Your task to perform on an android device: turn off location history Image 0: 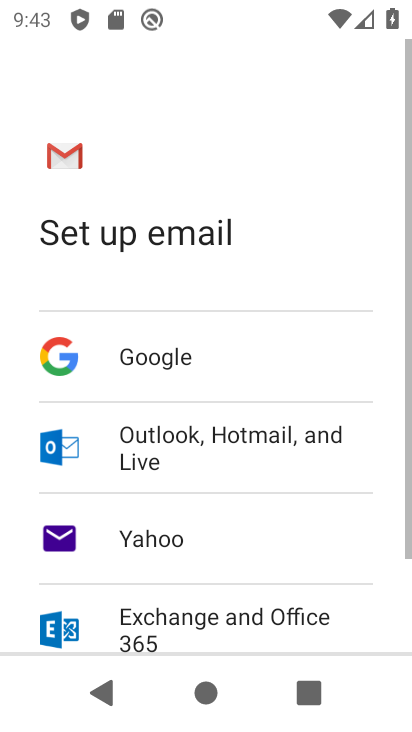
Step 0: press home button
Your task to perform on an android device: turn off location history Image 1: 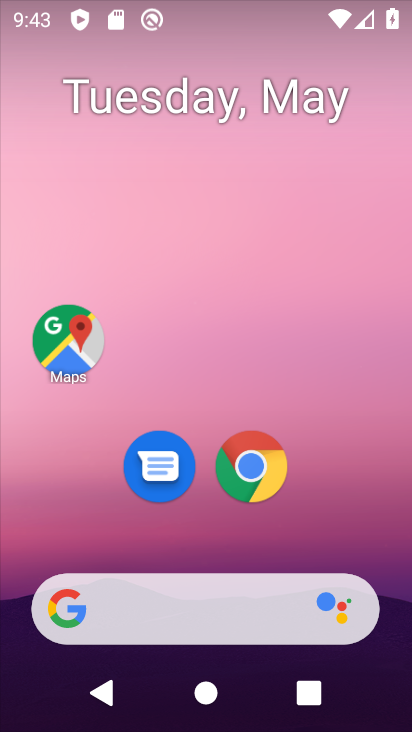
Step 1: drag from (57, 588) to (235, 55)
Your task to perform on an android device: turn off location history Image 2: 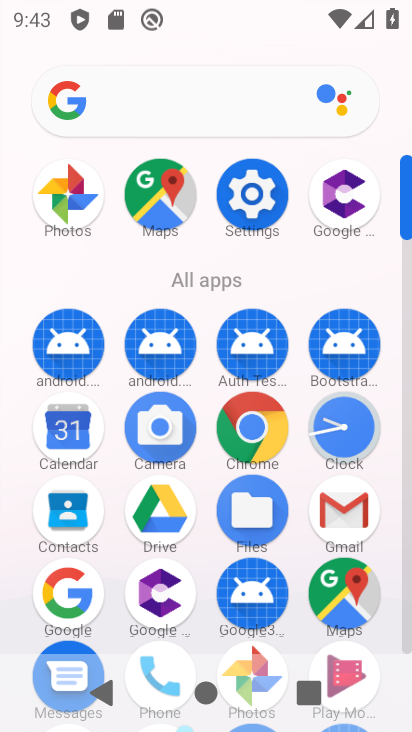
Step 2: drag from (200, 445) to (243, 242)
Your task to perform on an android device: turn off location history Image 3: 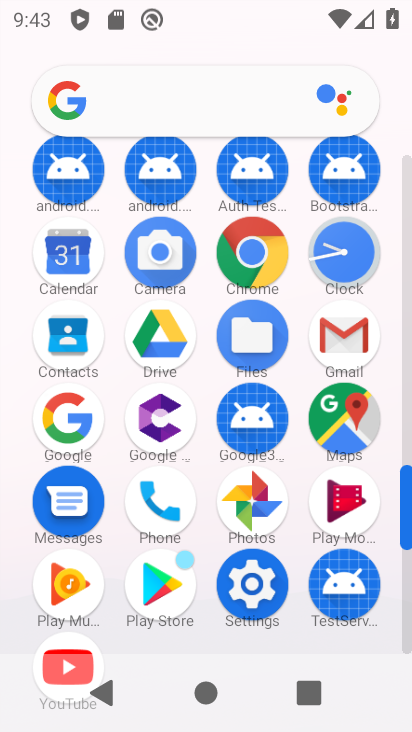
Step 3: click (250, 604)
Your task to perform on an android device: turn off location history Image 4: 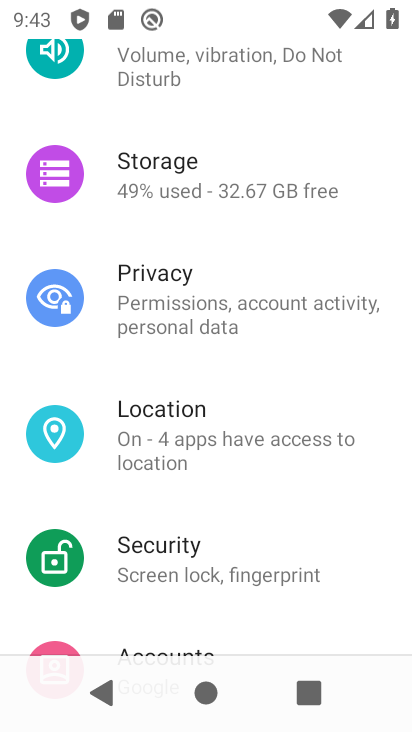
Step 4: drag from (253, 239) to (315, 254)
Your task to perform on an android device: turn off location history Image 5: 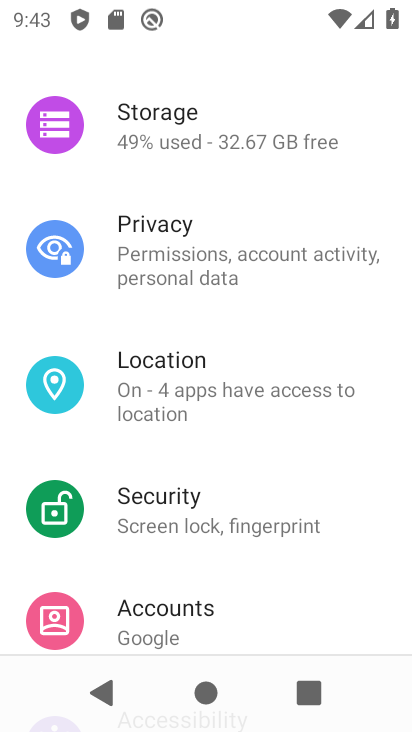
Step 5: click (205, 380)
Your task to perform on an android device: turn off location history Image 6: 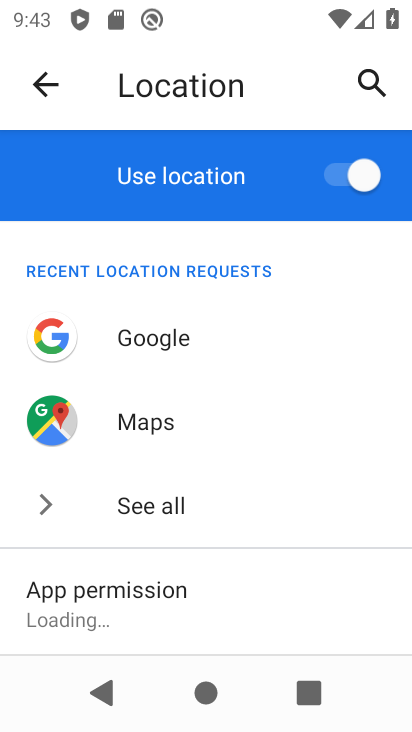
Step 6: drag from (193, 600) to (284, 258)
Your task to perform on an android device: turn off location history Image 7: 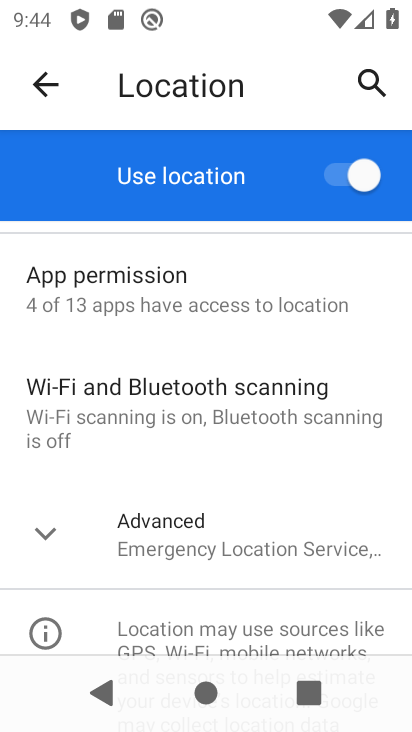
Step 7: click (218, 542)
Your task to perform on an android device: turn off location history Image 8: 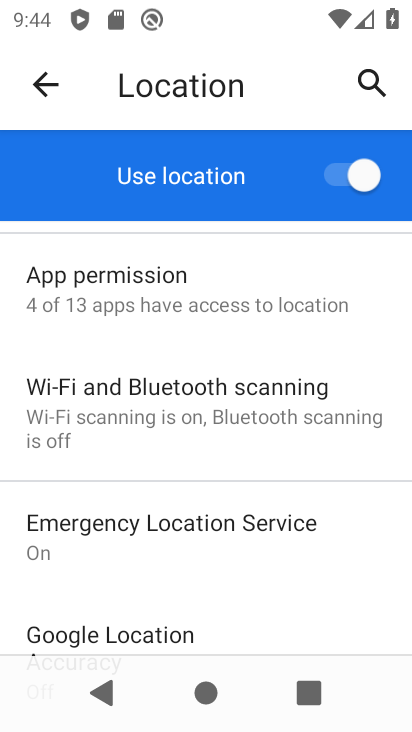
Step 8: drag from (232, 383) to (271, 292)
Your task to perform on an android device: turn off location history Image 9: 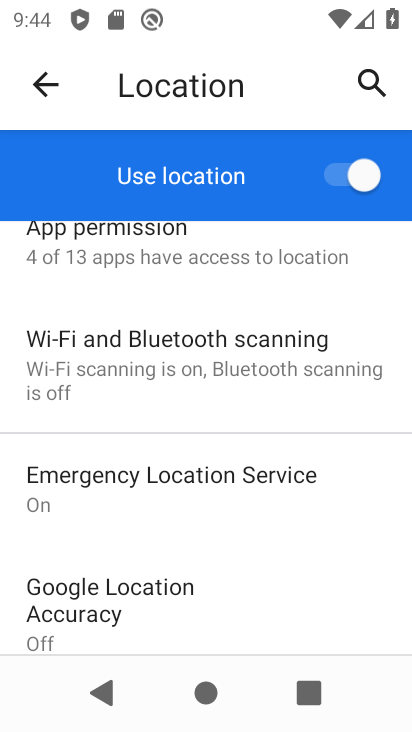
Step 9: drag from (195, 625) to (260, 392)
Your task to perform on an android device: turn off location history Image 10: 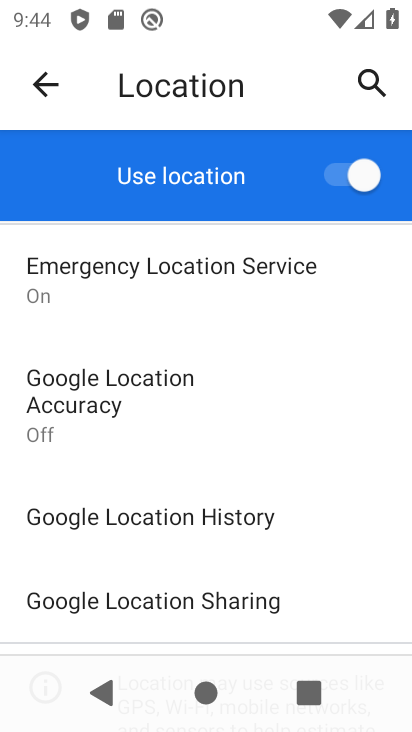
Step 10: drag from (147, 591) to (231, 496)
Your task to perform on an android device: turn off location history Image 11: 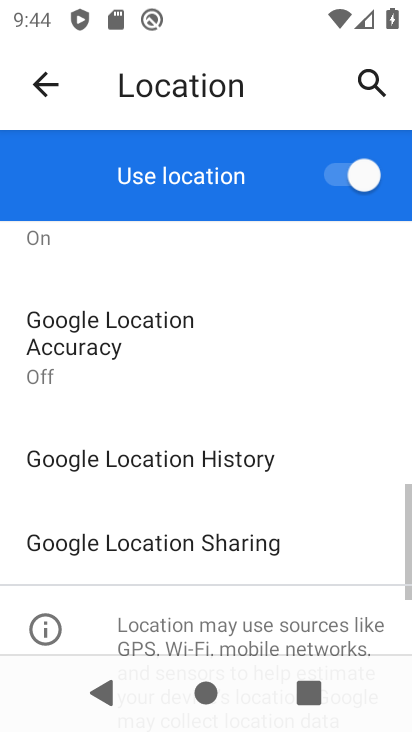
Step 11: click (210, 480)
Your task to perform on an android device: turn off location history Image 12: 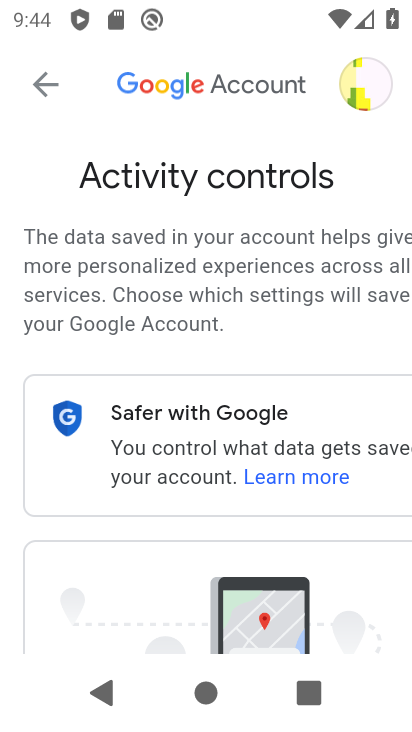
Step 12: drag from (153, 563) to (262, 223)
Your task to perform on an android device: turn off location history Image 13: 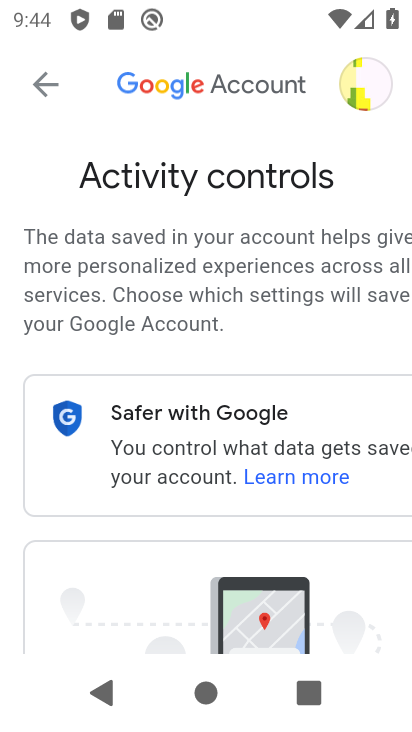
Step 13: drag from (206, 600) to (344, 83)
Your task to perform on an android device: turn off location history Image 14: 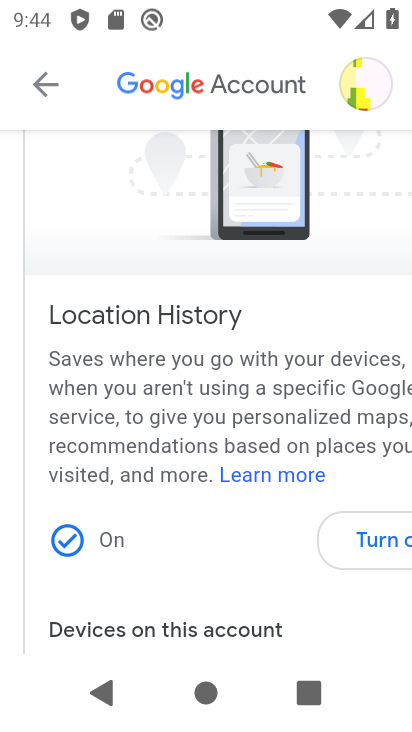
Step 14: click (358, 548)
Your task to perform on an android device: turn off location history Image 15: 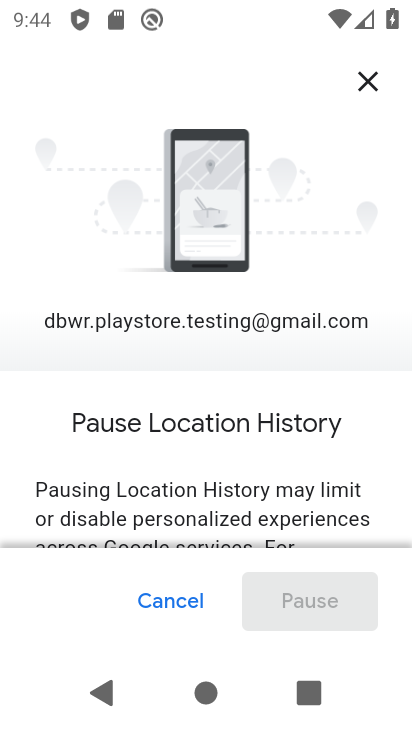
Step 15: drag from (190, 504) to (297, 100)
Your task to perform on an android device: turn off location history Image 16: 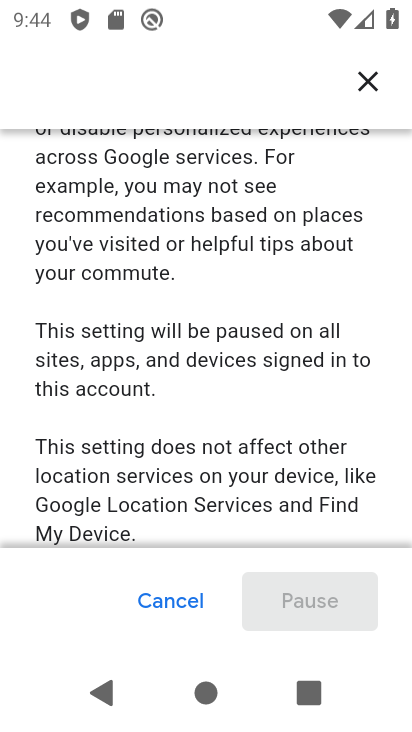
Step 16: drag from (204, 535) to (298, 167)
Your task to perform on an android device: turn off location history Image 17: 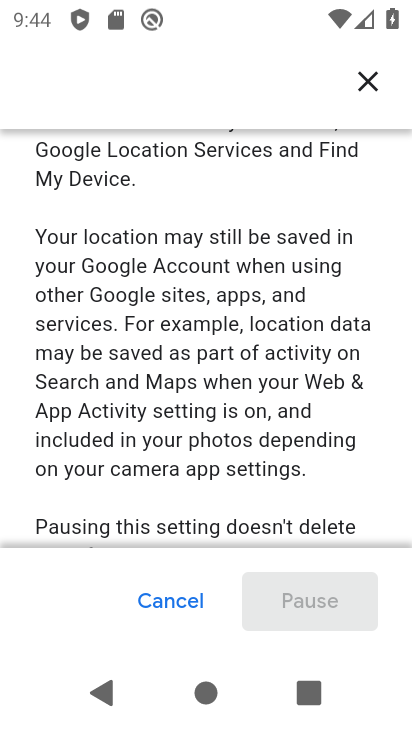
Step 17: drag from (201, 468) to (299, 143)
Your task to perform on an android device: turn off location history Image 18: 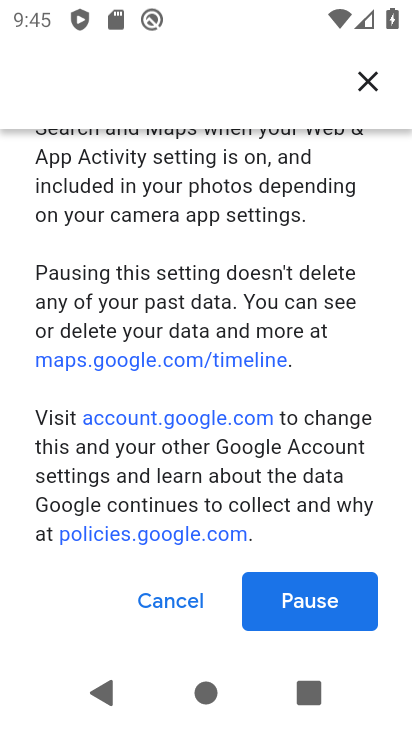
Step 18: click (321, 590)
Your task to perform on an android device: turn off location history Image 19: 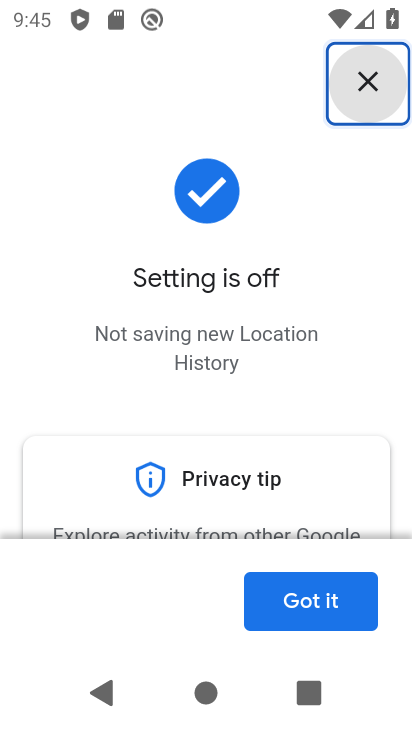
Step 19: click (327, 588)
Your task to perform on an android device: turn off location history Image 20: 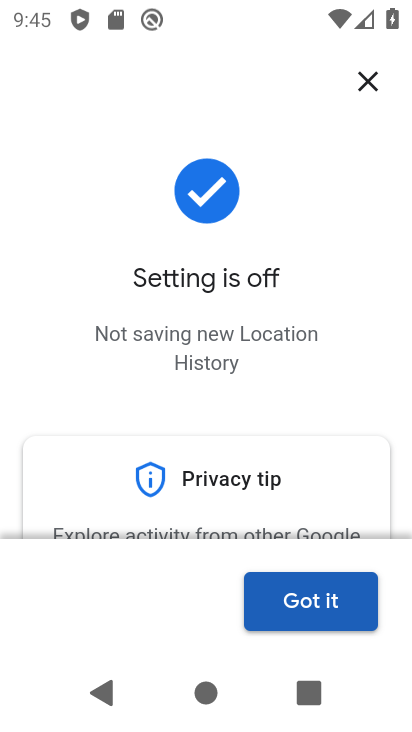
Step 20: click (300, 617)
Your task to perform on an android device: turn off location history Image 21: 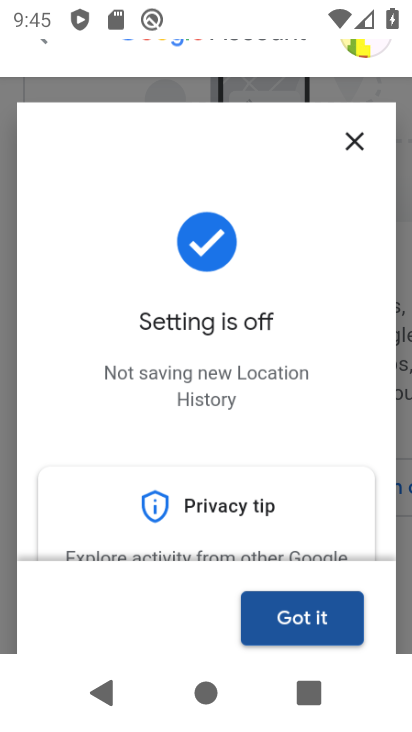
Step 21: task complete